Your task to perform on an android device: Open calendar and show me the fourth week of next month Image 0: 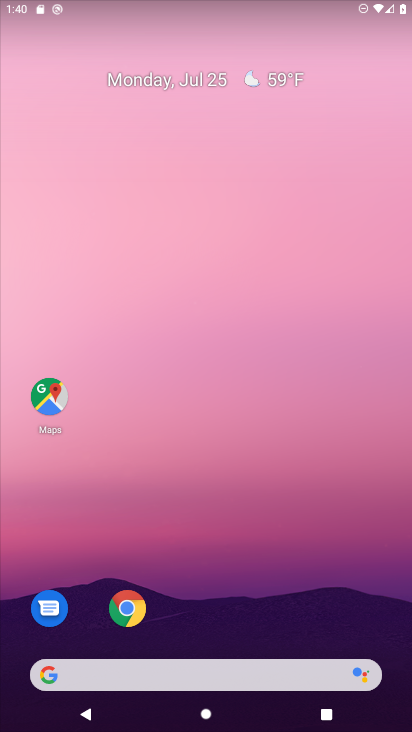
Step 0: drag from (369, 621) to (328, 127)
Your task to perform on an android device: Open calendar and show me the fourth week of next month Image 1: 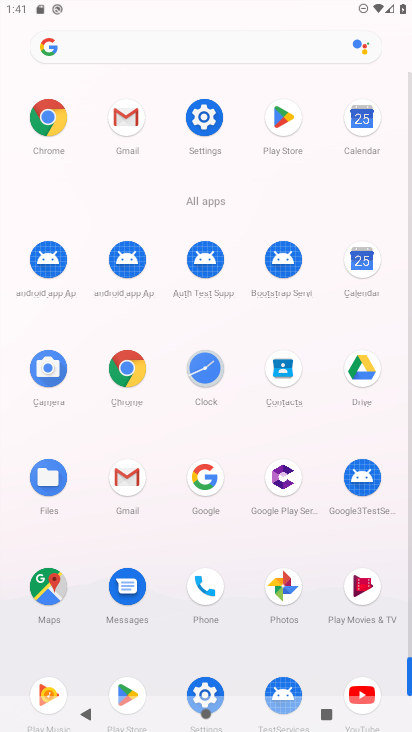
Step 1: click (360, 260)
Your task to perform on an android device: Open calendar and show me the fourth week of next month Image 2: 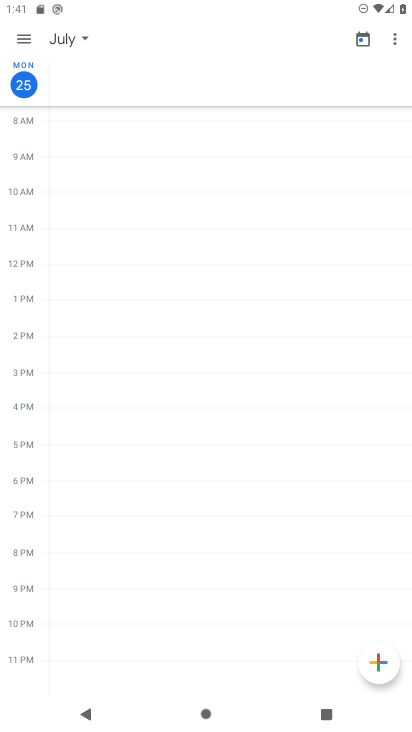
Step 2: click (20, 38)
Your task to perform on an android device: Open calendar and show me the fourth week of next month Image 3: 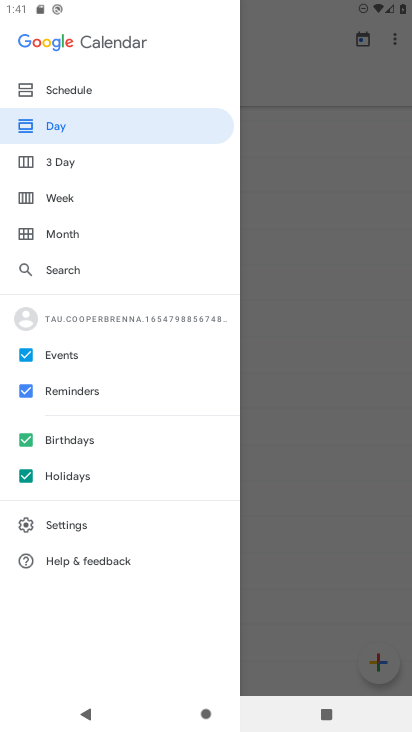
Step 3: click (57, 200)
Your task to perform on an android device: Open calendar and show me the fourth week of next month Image 4: 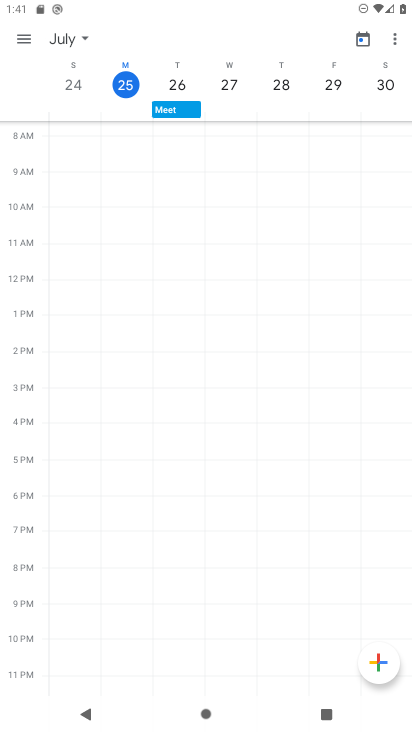
Step 4: click (85, 40)
Your task to perform on an android device: Open calendar and show me the fourth week of next month Image 5: 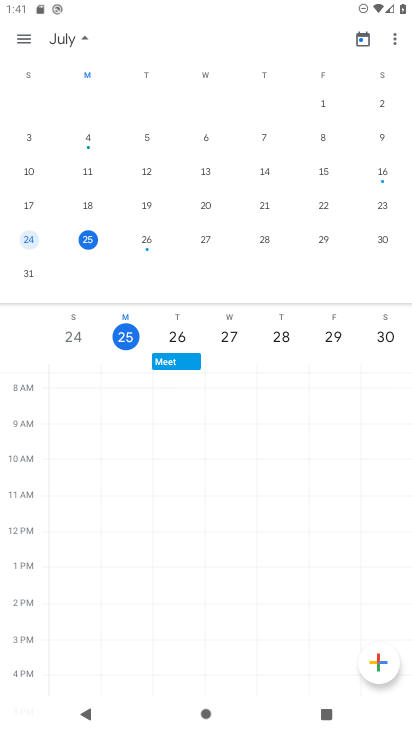
Step 5: drag from (376, 211) to (0, 191)
Your task to perform on an android device: Open calendar and show me the fourth week of next month Image 6: 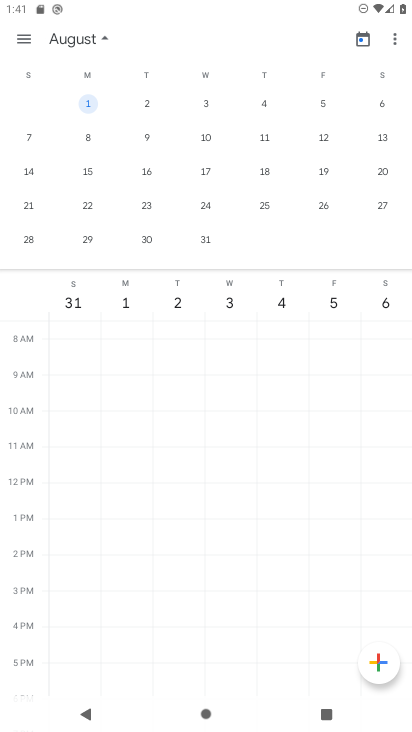
Step 6: click (22, 243)
Your task to perform on an android device: Open calendar and show me the fourth week of next month Image 7: 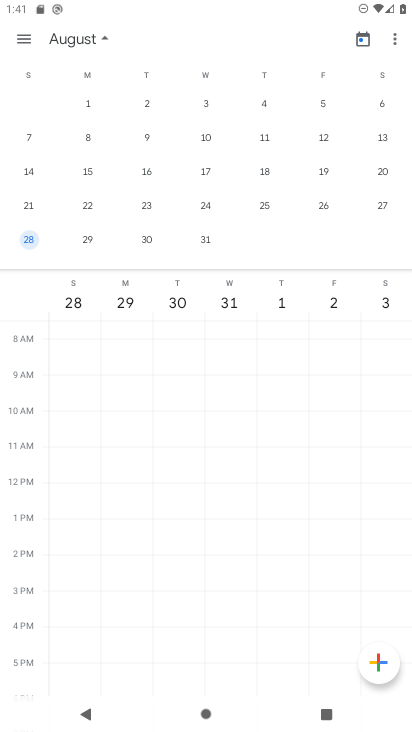
Step 7: task complete